Your task to perform on an android device: set default search engine in the chrome app Image 0: 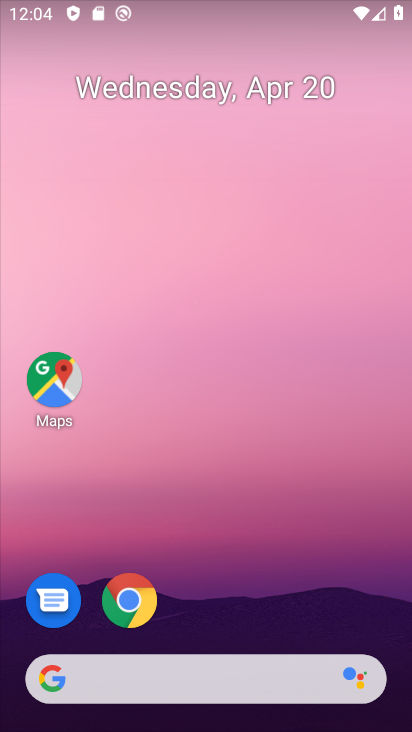
Step 0: drag from (315, 595) to (221, 23)
Your task to perform on an android device: set default search engine in the chrome app Image 1: 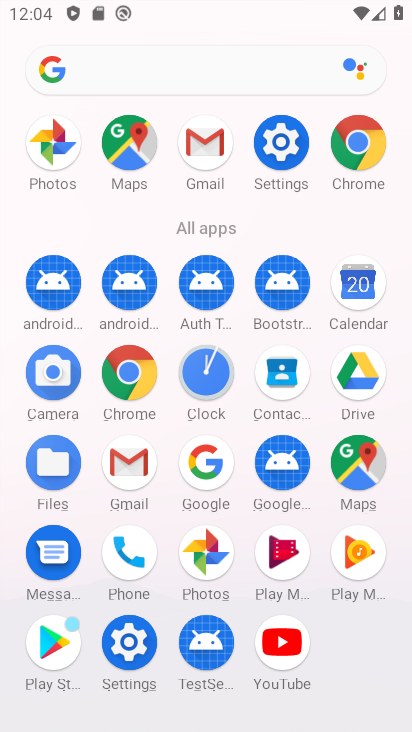
Step 1: drag from (22, 397) to (0, 202)
Your task to perform on an android device: set default search engine in the chrome app Image 2: 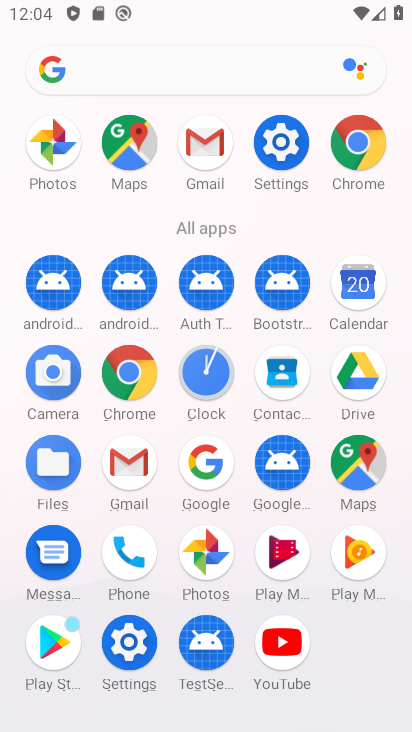
Step 2: click (131, 367)
Your task to perform on an android device: set default search engine in the chrome app Image 3: 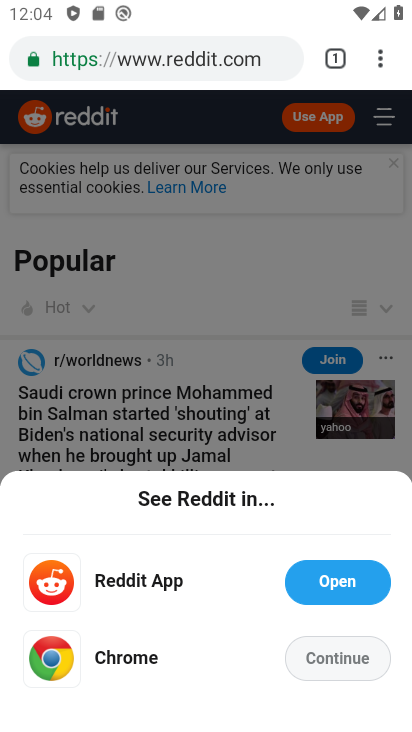
Step 3: click (382, 58)
Your task to perform on an android device: set default search engine in the chrome app Image 4: 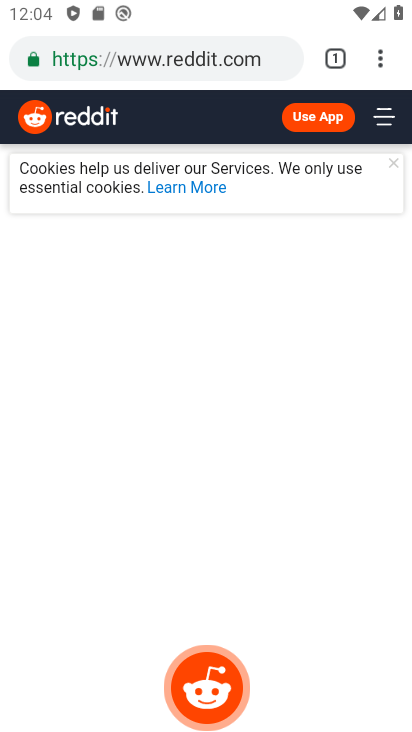
Step 4: drag from (380, 58) to (230, 623)
Your task to perform on an android device: set default search engine in the chrome app Image 5: 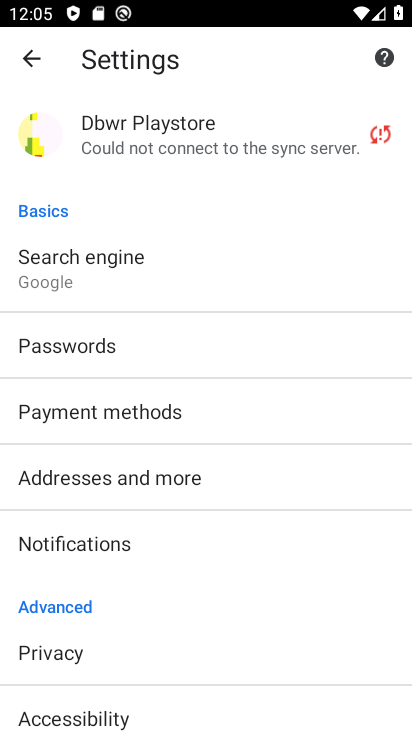
Step 5: drag from (292, 600) to (286, 239)
Your task to perform on an android device: set default search engine in the chrome app Image 6: 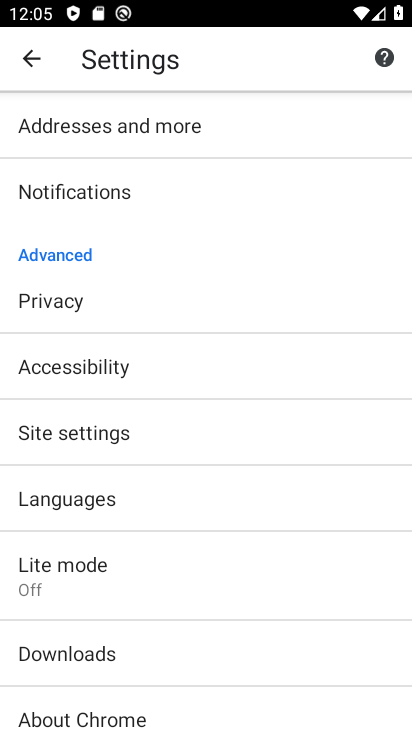
Step 6: drag from (263, 195) to (286, 620)
Your task to perform on an android device: set default search engine in the chrome app Image 7: 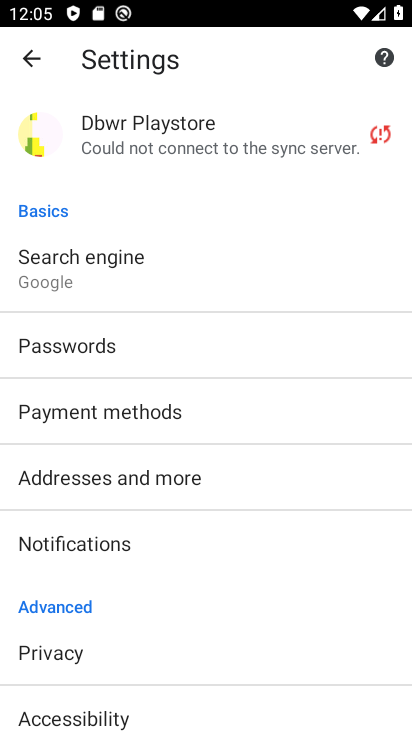
Step 7: click (150, 280)
Your task to perform on an android device: set default search engine in the chrome app Image 8: 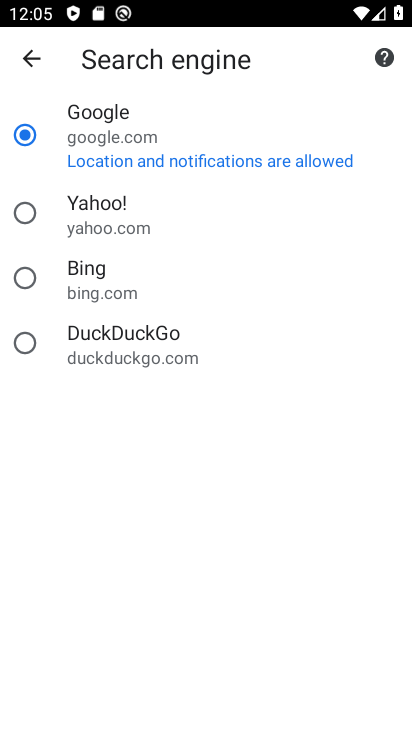
Step 8: click (143, 209)
Your task to perform on an android device: set default search engine in the chrome app Image 9: 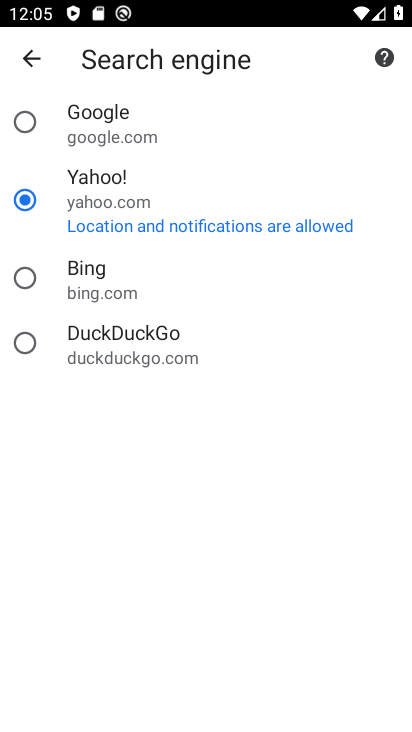
Step 9: task complete